Your task to perform on an android device: Go to Amazon Image 0: 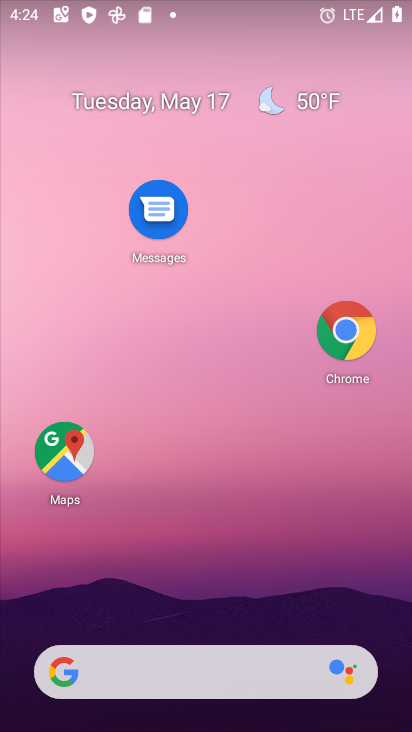
Step 0: drag from (216, 568) to (170, 5)
Your task to perform on an android device: Go to Amazon Image 1: 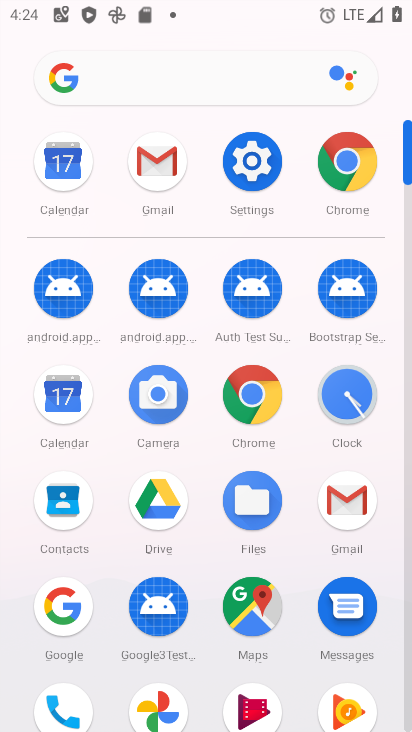
Step 1: click (317, 185)
Your task to perform on an android device: Go to Amazon Image 2: 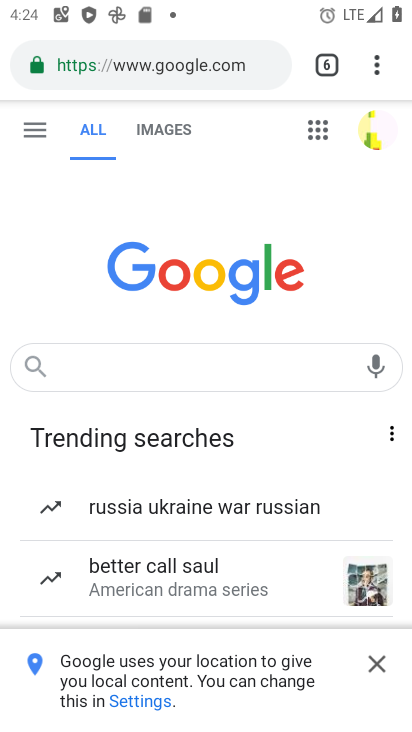
Step 2: click (243, 358)
Your task to perform on an android device: Go to Amazon Image 3: 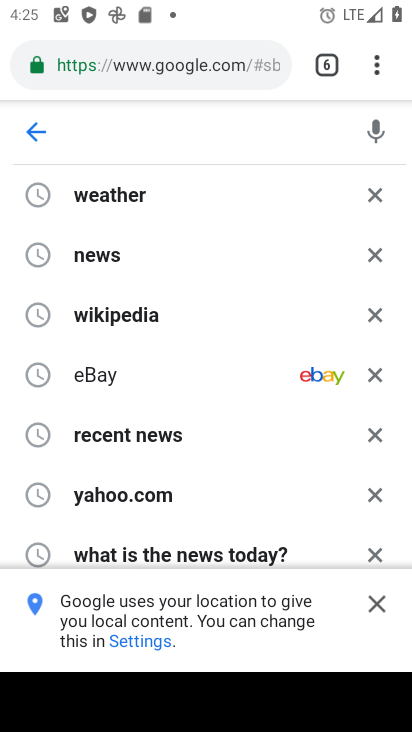
Step 3: type "amazon"
Your task to perform on an android device: Go to Amazon Image 4: 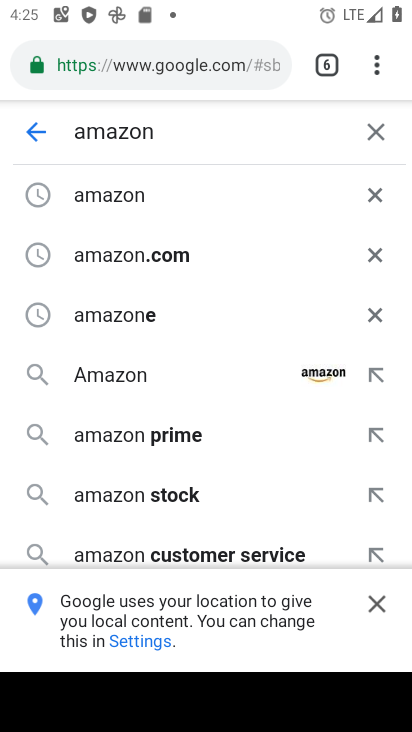
Step 4: click (175, 241)
Your task to perform on an android device: Go to Amazon Image 5: 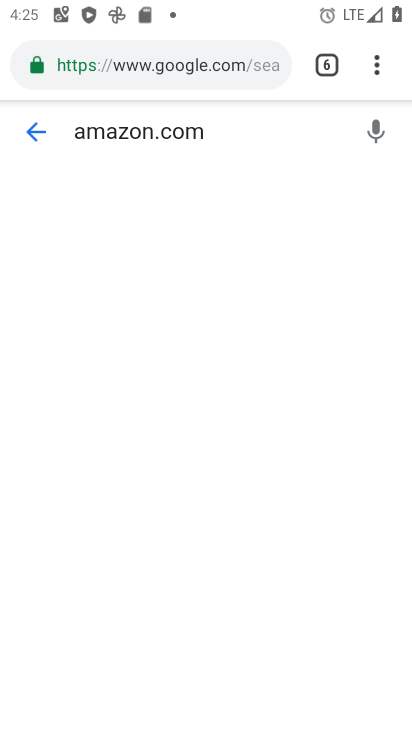
Step 5: task complete